Your task to perform on an android device: search for starred emails in the gmail app Image 0: 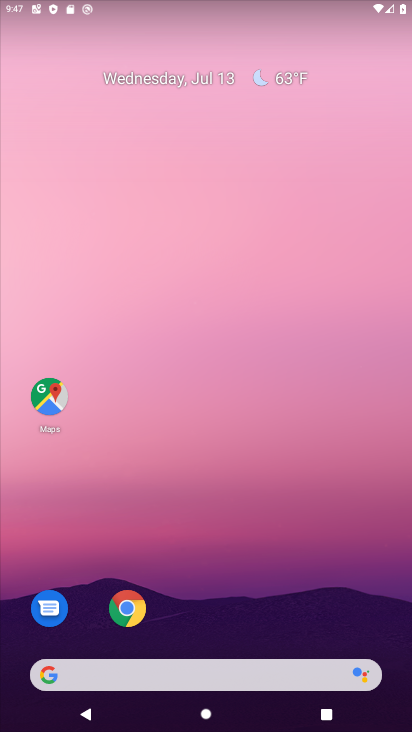
Step 0: drag from (174, 649) to (232, 9)
Your task to perform on an android device: search for starred emails in the gmail app Image 1: 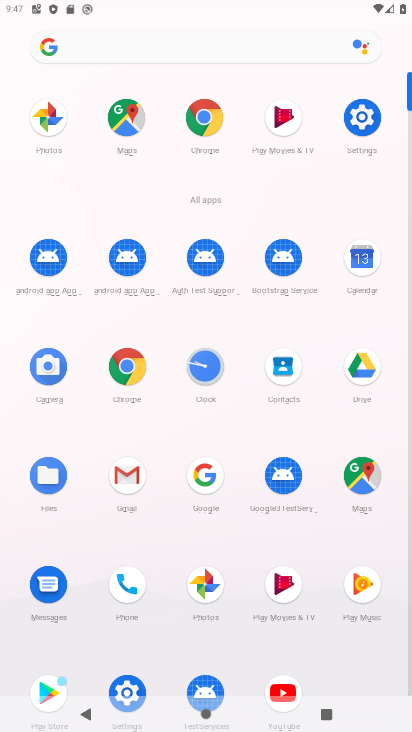
Step 1: click (127, 485)
Your task to perform on an android device: search for starred emails in the gmail app Image 2: 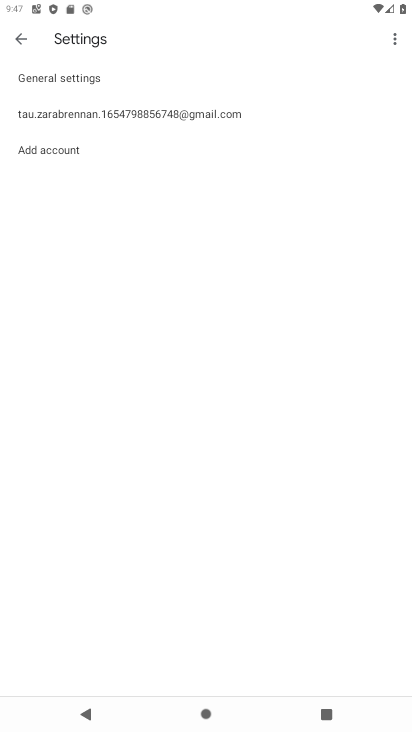
Step 2: click (16, 32)
Your task to perform on an android device: search for starred emails in the gmail app Image 3: 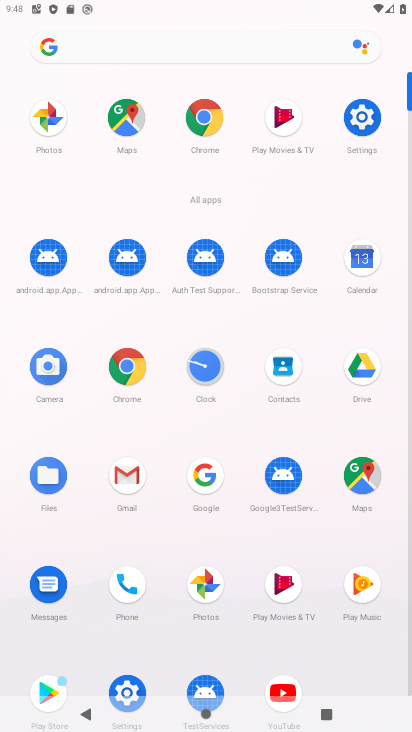
Step 3: click (124, 486)
Your task to perform on an android device: search for starred emails in the gmail app Image 4: 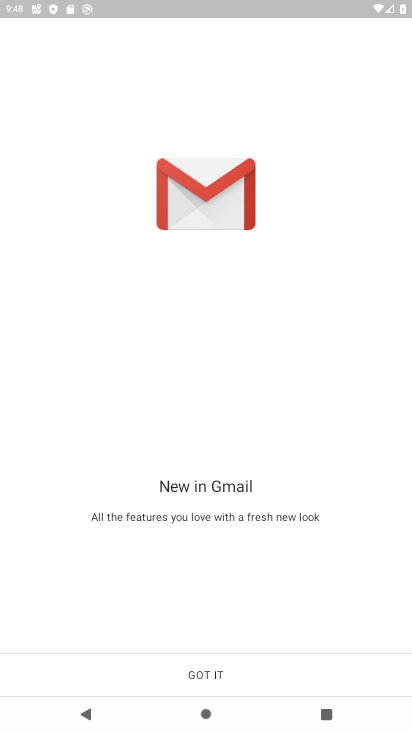
Step 4: click (214, 665)
Your task to perform on an android device: search for starred emails in the gmail app Image 5: 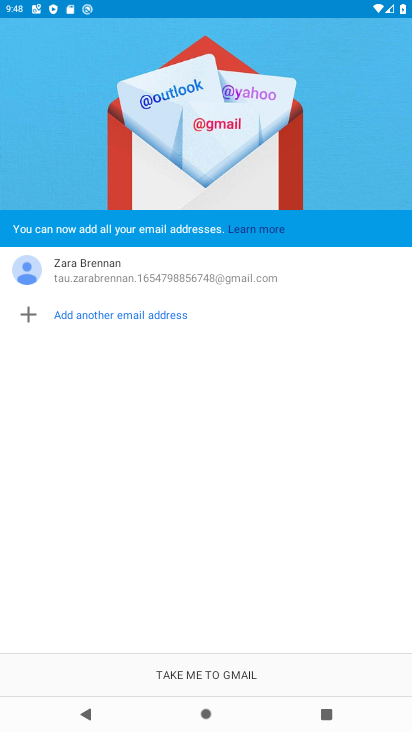
Step 5: click (225, 673)
Your task to perform on an android device: search for starred emails in the gmail app Image 6: 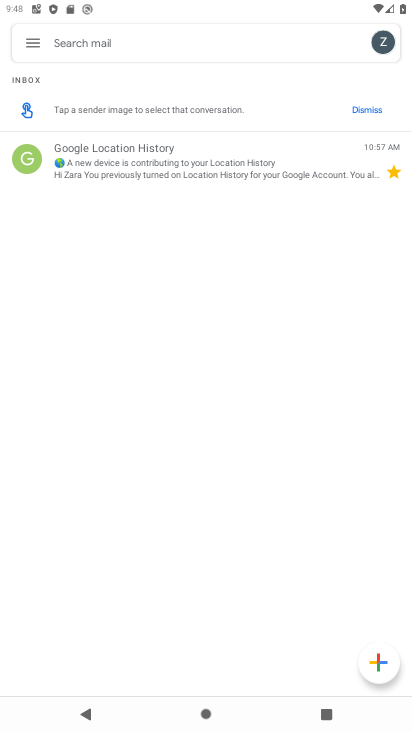
Step 6: click (30, 44)
Your task to perform on an android device: search for starred emails in the gmail app Image 7: 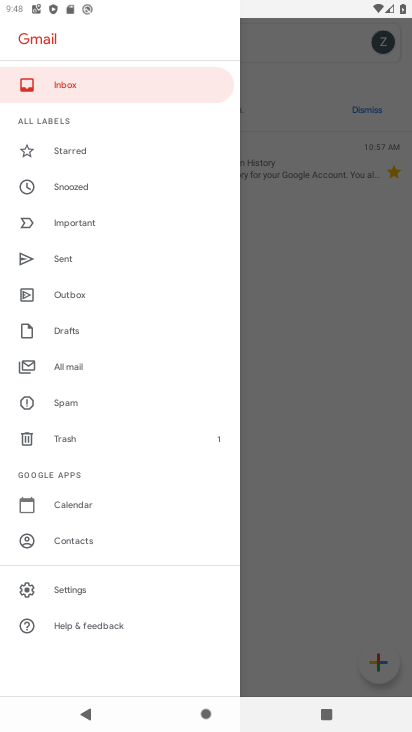
Step 7: click (77, 147)
Your task to perform on an android device: search for starred emails in the gmail app Image 8: 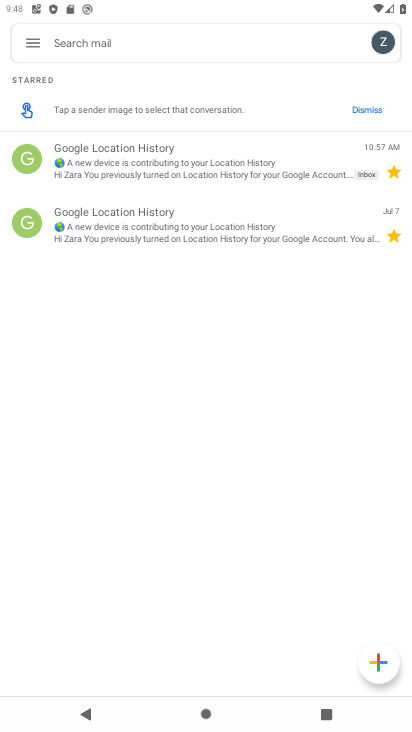
Step 8: task complete